Your task to perform on an android device: turn pop-ups on in chrome Image 0: 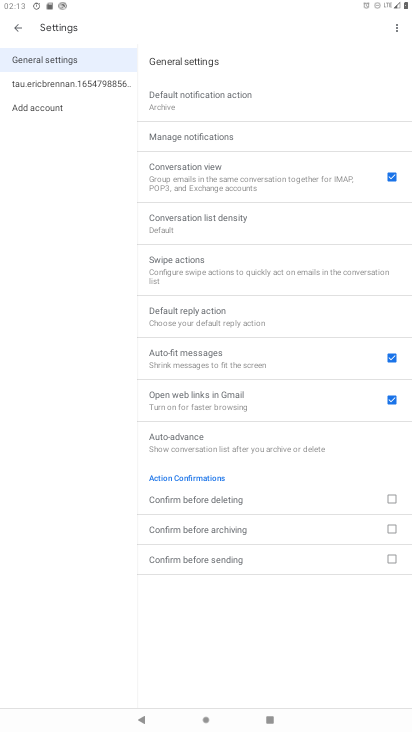
Step 0: press home button
Your task to perform on an android device: turn pop-ups on in chrome Image 1: 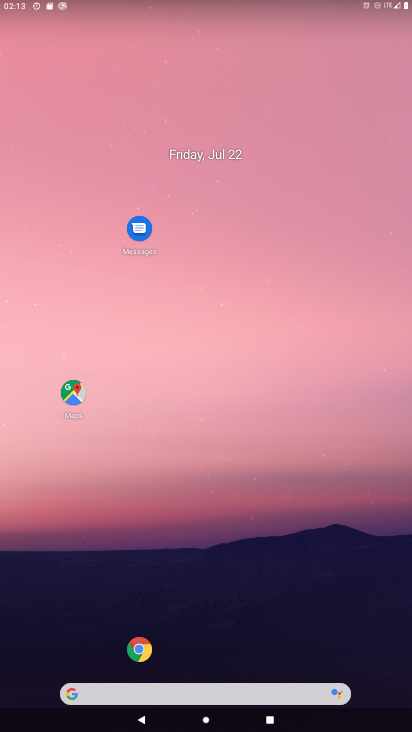
Step 1: click (157, 645)
Your task to perform on an android device: turn pop-ups on in chrome Image 2: 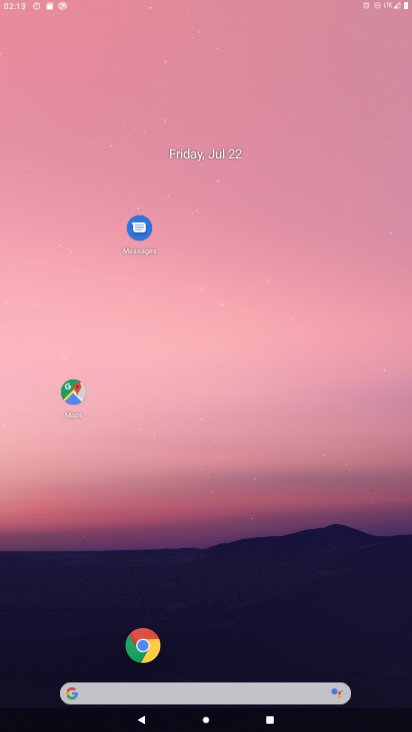
Step 2: click (154, 647)
Your task to perform on an android device: turn pop-ups on in chrome Image 3: 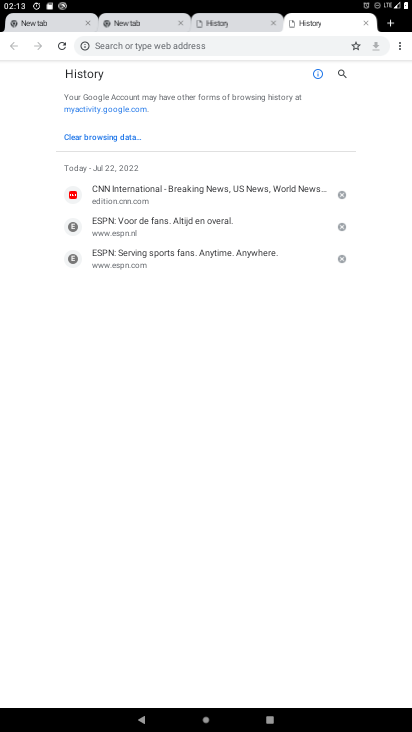
Step 3: click (399, 47)
Your task to perform on an android device: turn pop-ups on in chrome Image 4: 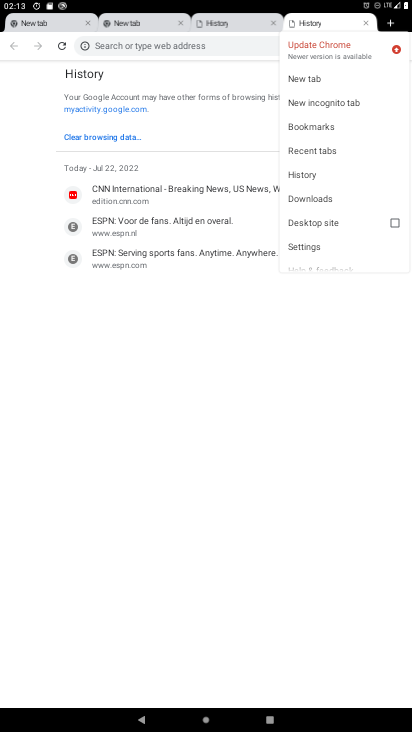
Step 4: click (304, 250)
Your task to perform on an android device: turn pop-ups on in chrome Image 5: 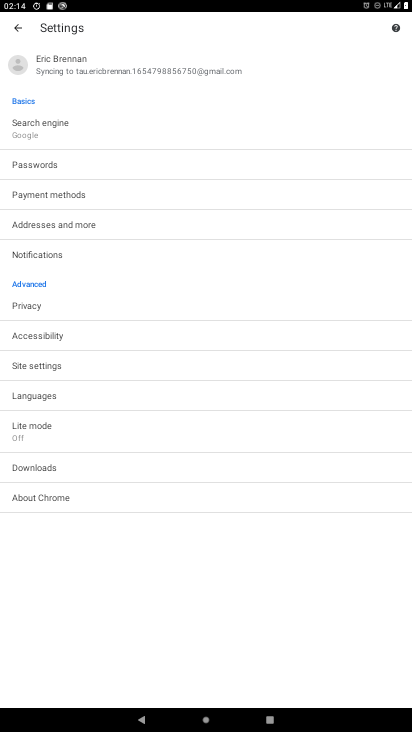
Step 5: click (46, 359)
Your task to perform on an android device: turn pop-ups on in chrome Image 6: 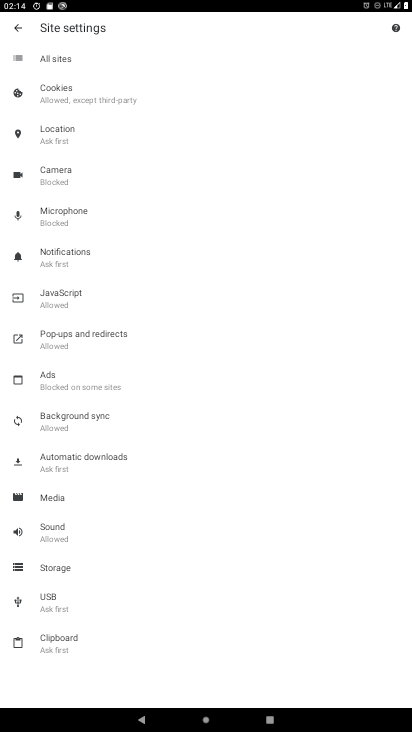
Step 6: click (81, 350)
Your task to perform on an android device: turn pop-ups on in chrome Image 7: 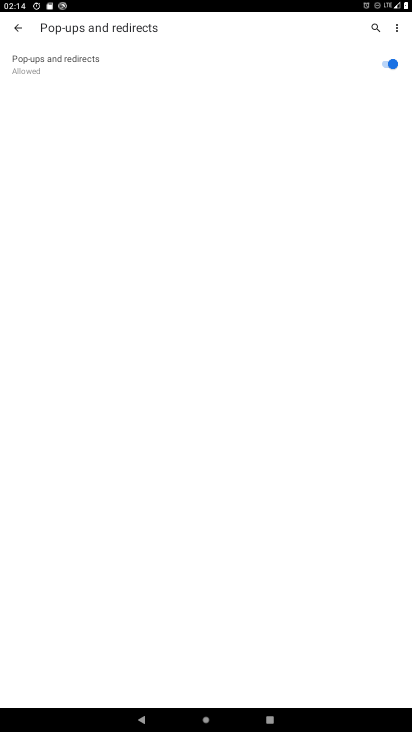
Step 7: task complete